Your task to perform on an android device: see tabs open on other devices in the chrome app Image 0: 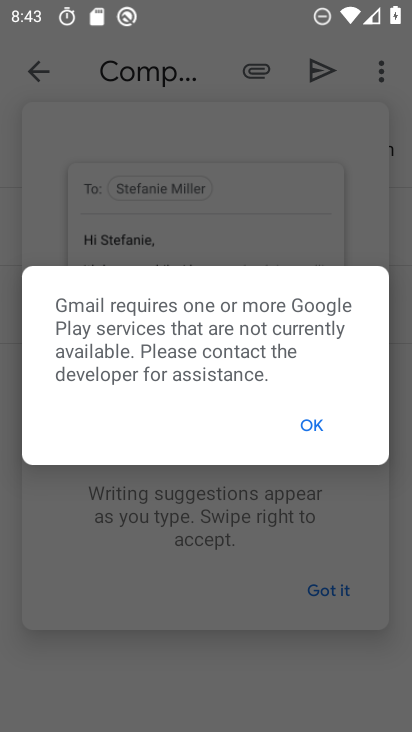
Step 0: press home button
Your task to perform on an android device: see tabs open on other devices in the chrome app Image 1: 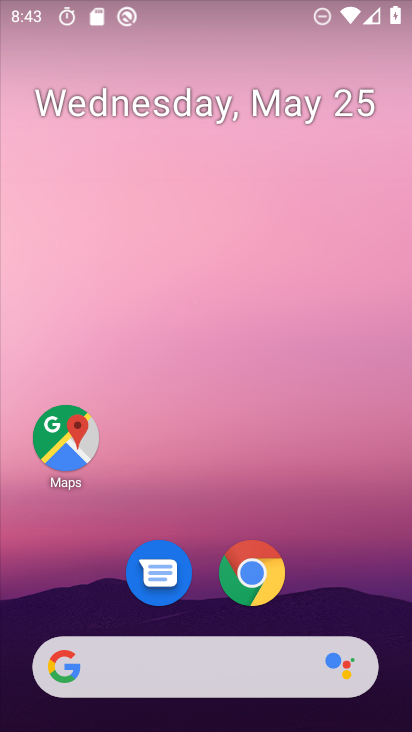
Step 1: click (246, 559)
Your task to perform on an android device: see tabs open on other devices in the chrome app Image 2: 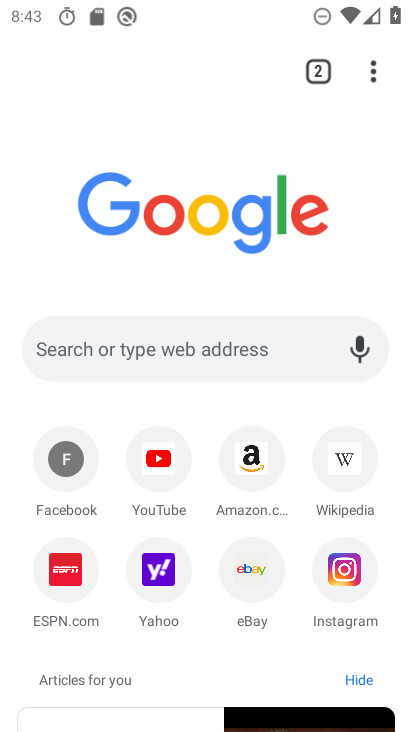
Step 2: click (369, 68)
Your task to perform on an android device: see tabs open on other devices in the chrome app Image 3: 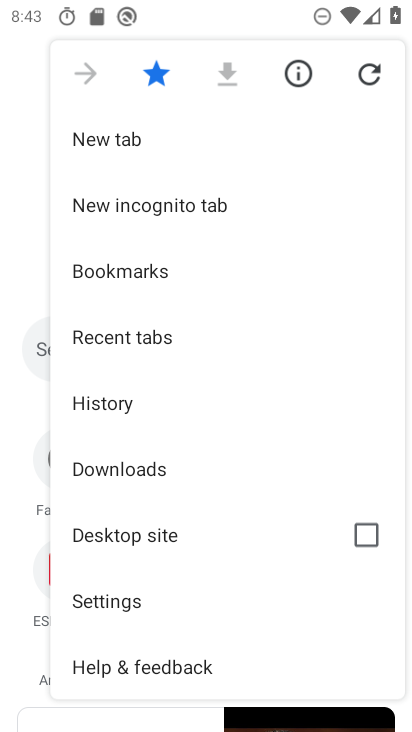
Step 3: drag from (263, 657) to (276, 339)
Your task to perform on an android device: see tabs open on other devices in the chrome app Image 4: 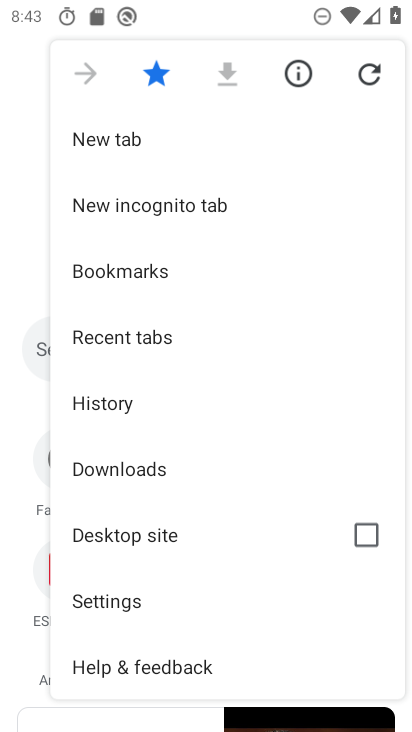
Step 4: click (96, 332)
Your task to perform on an android device: see tabs open on other devices in the chrome app Image 5: 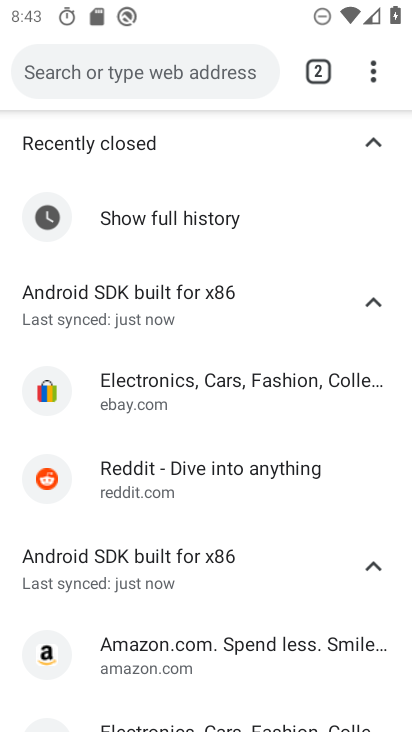
Step 5: task complete